Your task to perform on an android device: turn notification dots off Image 0: 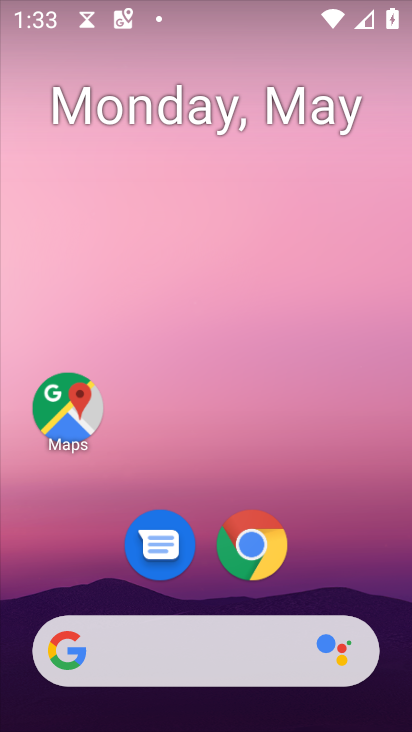
Step 0: drag from (358, 555) to (320, 258)
Your task to perform on an android device: turn notification dots off Image 1: 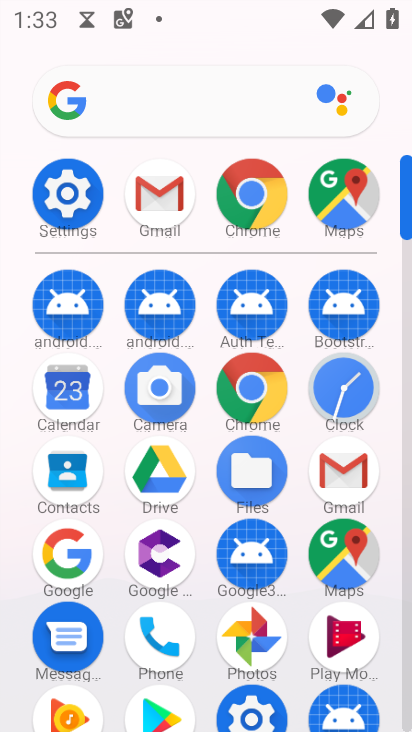
Step 1: click (51, 187)
Your task to perform on an android device: turn notification dots off Image 2: 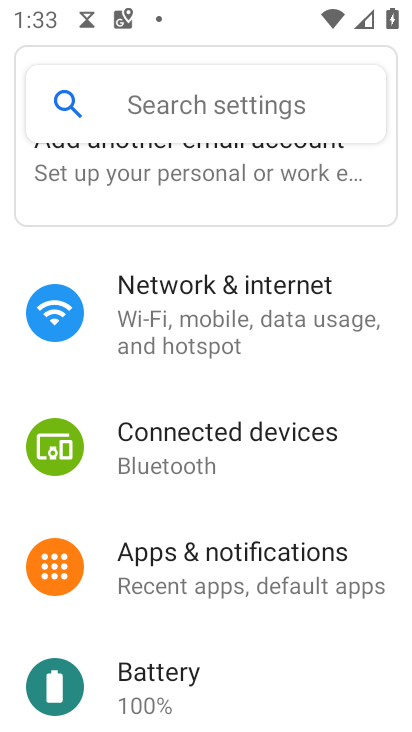
Step 2: click (183, 85)
Your task to perform on an android device: turn notification dots off Image 3: 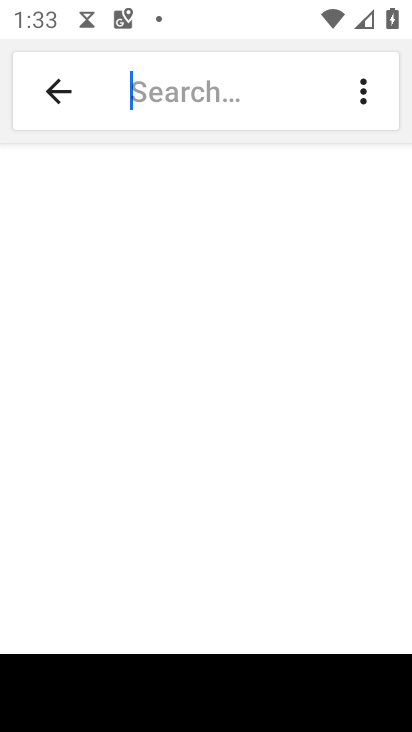
Step 3: click (178, 97)
Your task to perform on an android device: turn notification dots off Image 4: 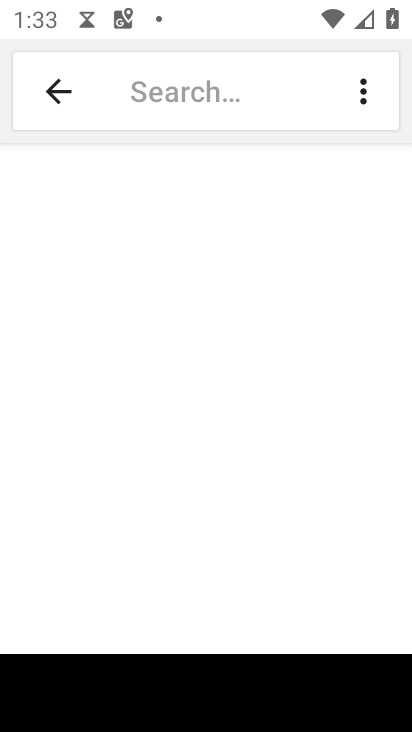
Step 4: type "notification dots"
Your task to perform on an android device: turn notification dots off Image 5: 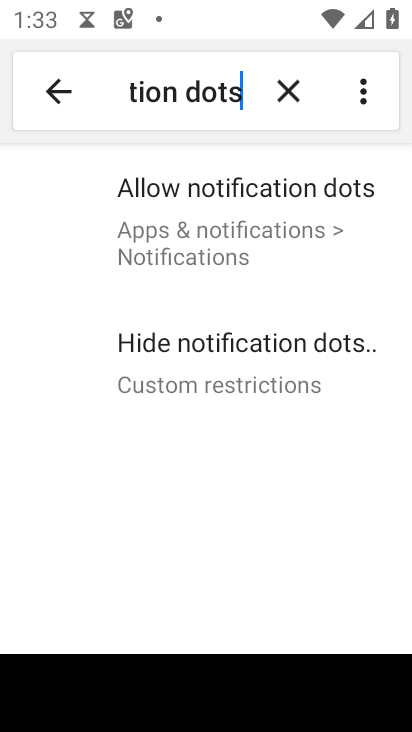
Step 5: click (268, 249)
Your task to perform on an android device: turn notification dots off Image 6: 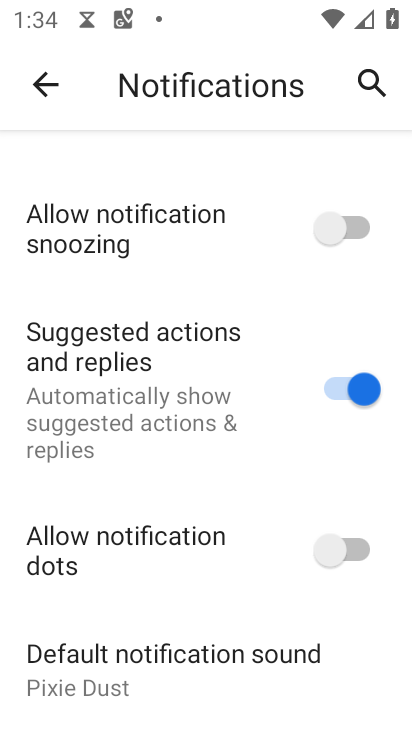
Step 6: task complete